Your task to perform on an android device: Set the phone to "Do not disturb". Image 0: 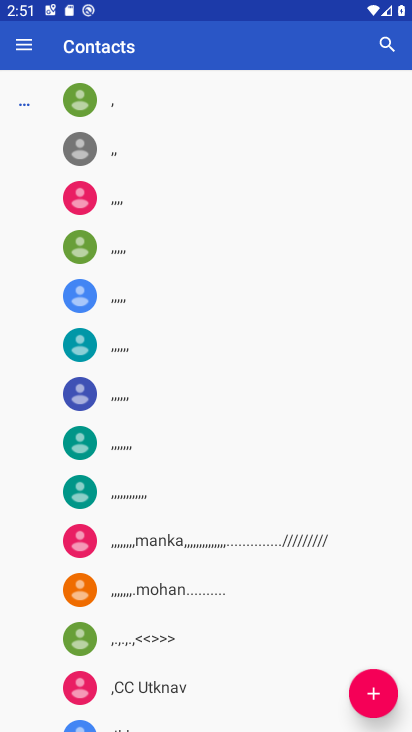
Step 0: press home button
Your task to perform on an android device: Set the phone to "Do not disturb". Image 1: 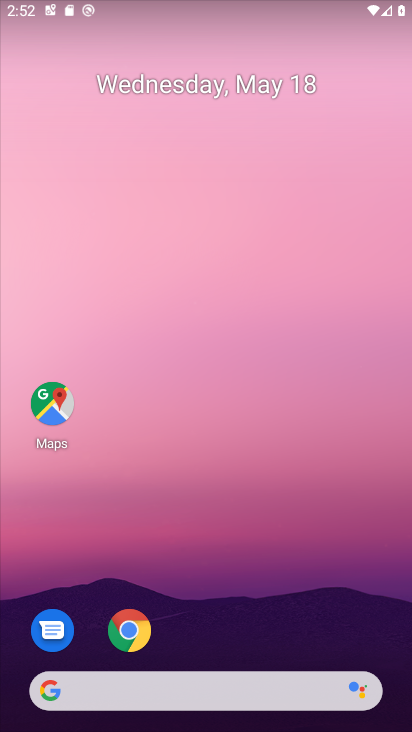
Step 1: drag from (201, 3) to (247, 558)
Your task to perform on an android device: Set the phone to "Do not disturb". Image 2: 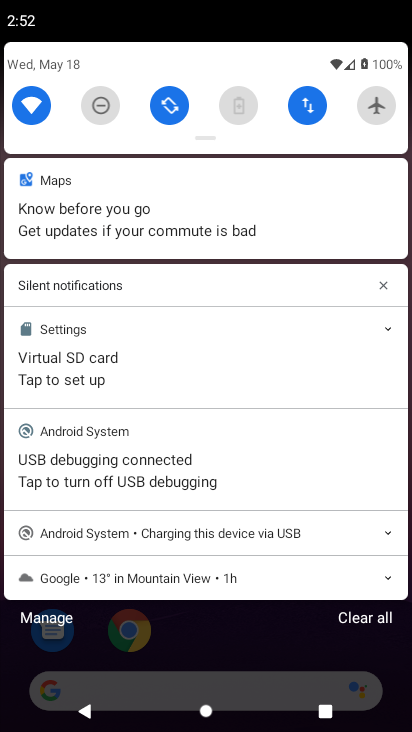
Step 2: click (103, 98)
Your task to perform on an android device: Set the phone to "Do not disturb". Image 3: 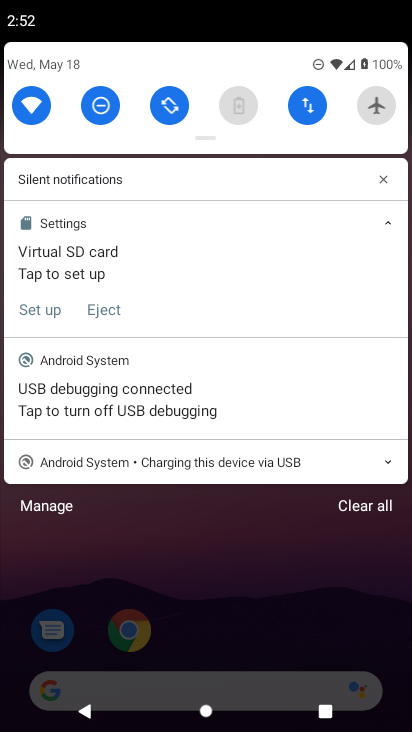
Step 3: task complete